Your task to perform on an android device: Open Maps and search for coffee Image 0: 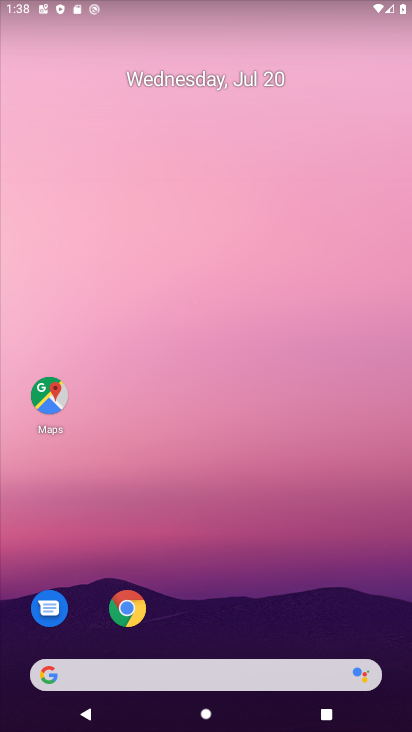
Step 0: click (57, 435)
Your task to perform on an android device: Open Maps and search for coffee Image 1: 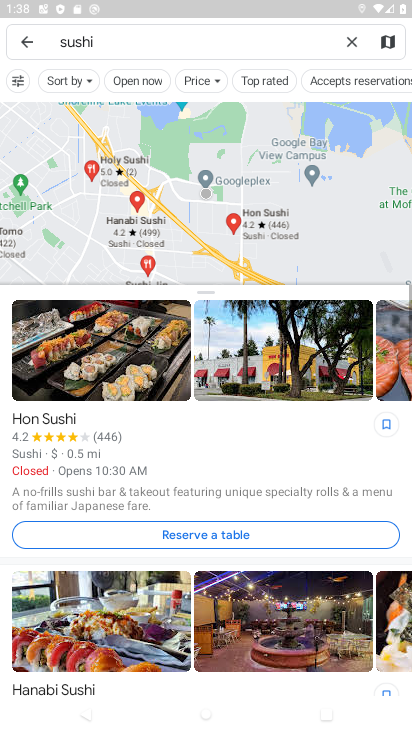
Step 1: task complete